Your task to perform on an android device: Turn off the flashlight Image 0: 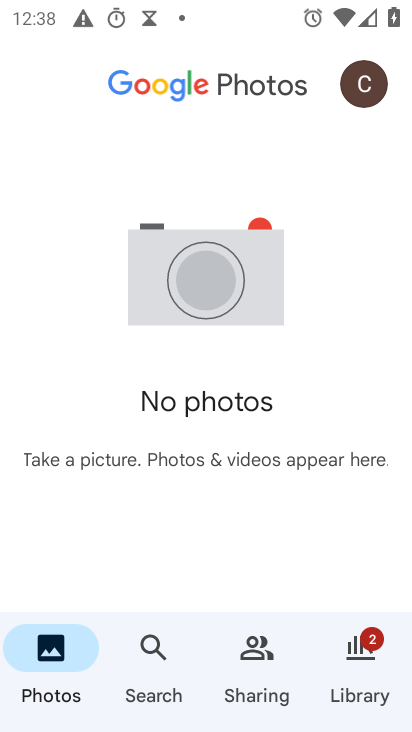
Step 0: press home button
Your task to perform on an android device: Turn off the flashlight Image 1: 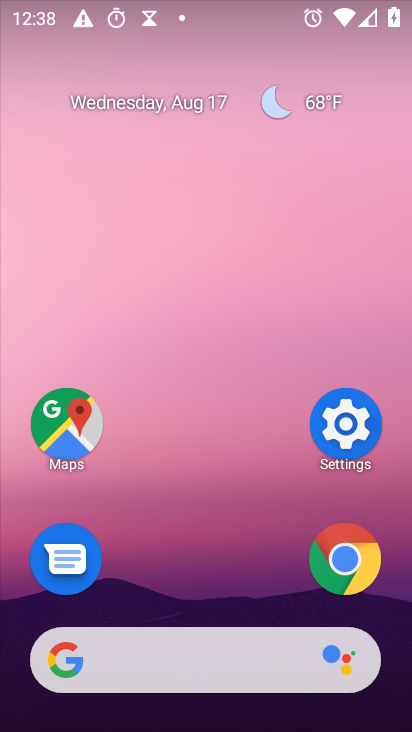
Step 1: task complete